Your task to perform on an android device: turn on bluetooth scan Image 0: 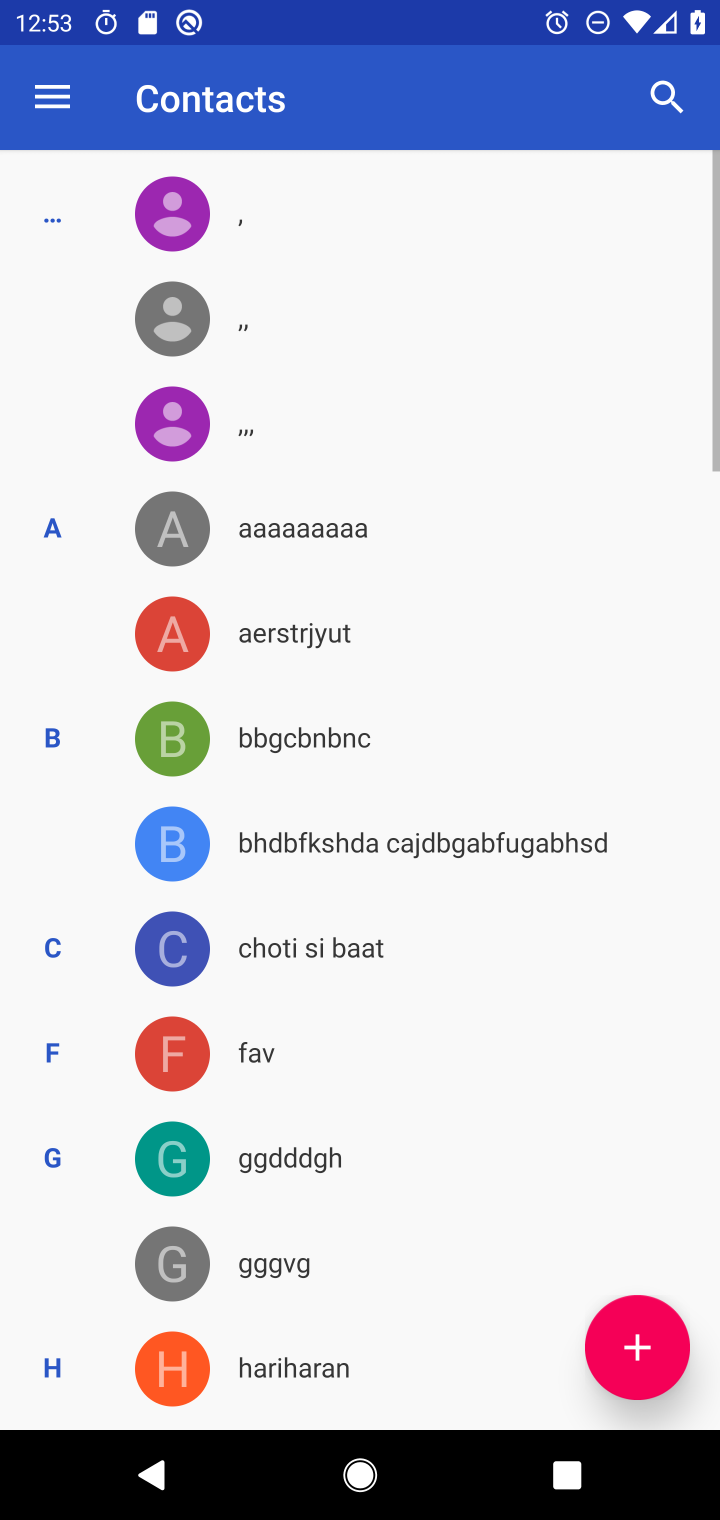
Step 0: press home button
Your task to perform on an android device: turn on bluetooth scan Image 1: 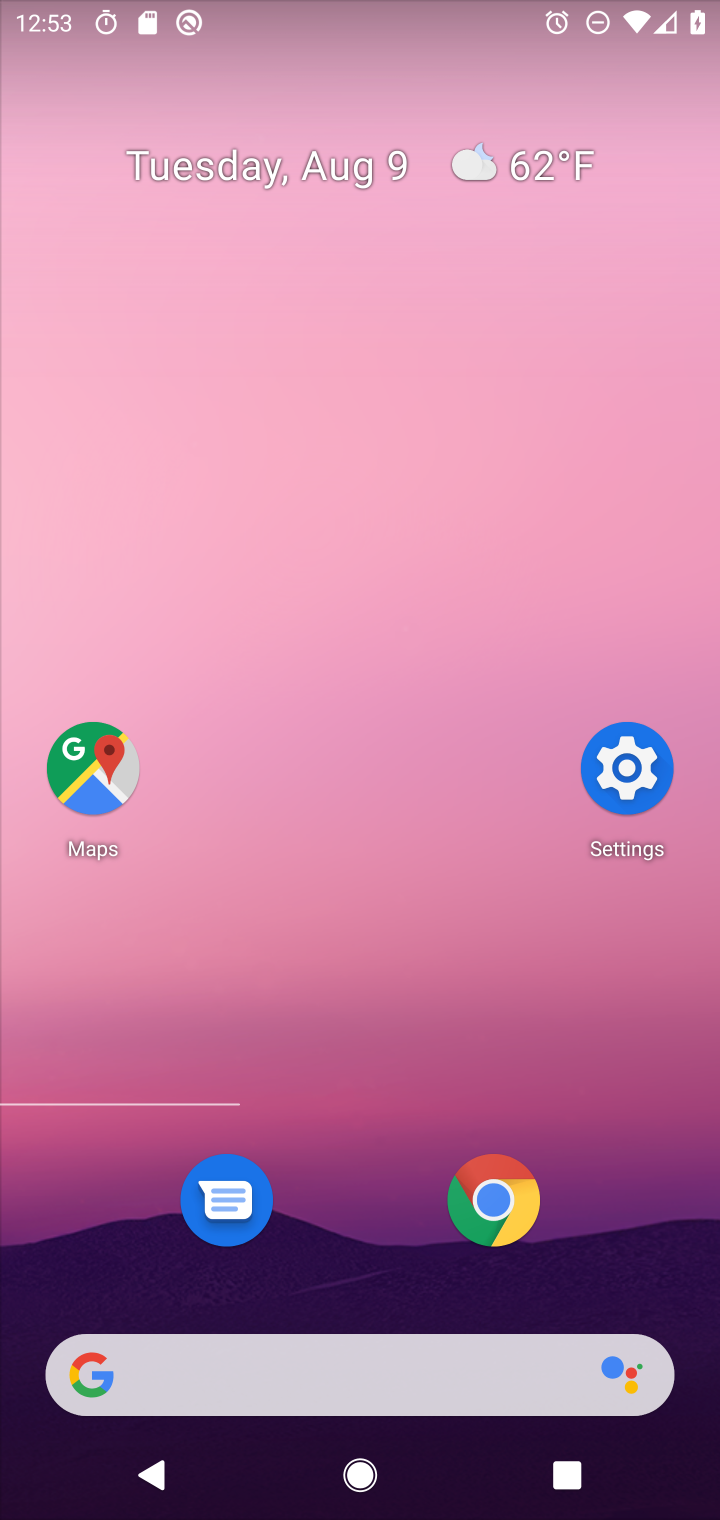
Step 1: click (610, 772)
Your task to perform on an android device: turn on bluetooth scan Image 2: 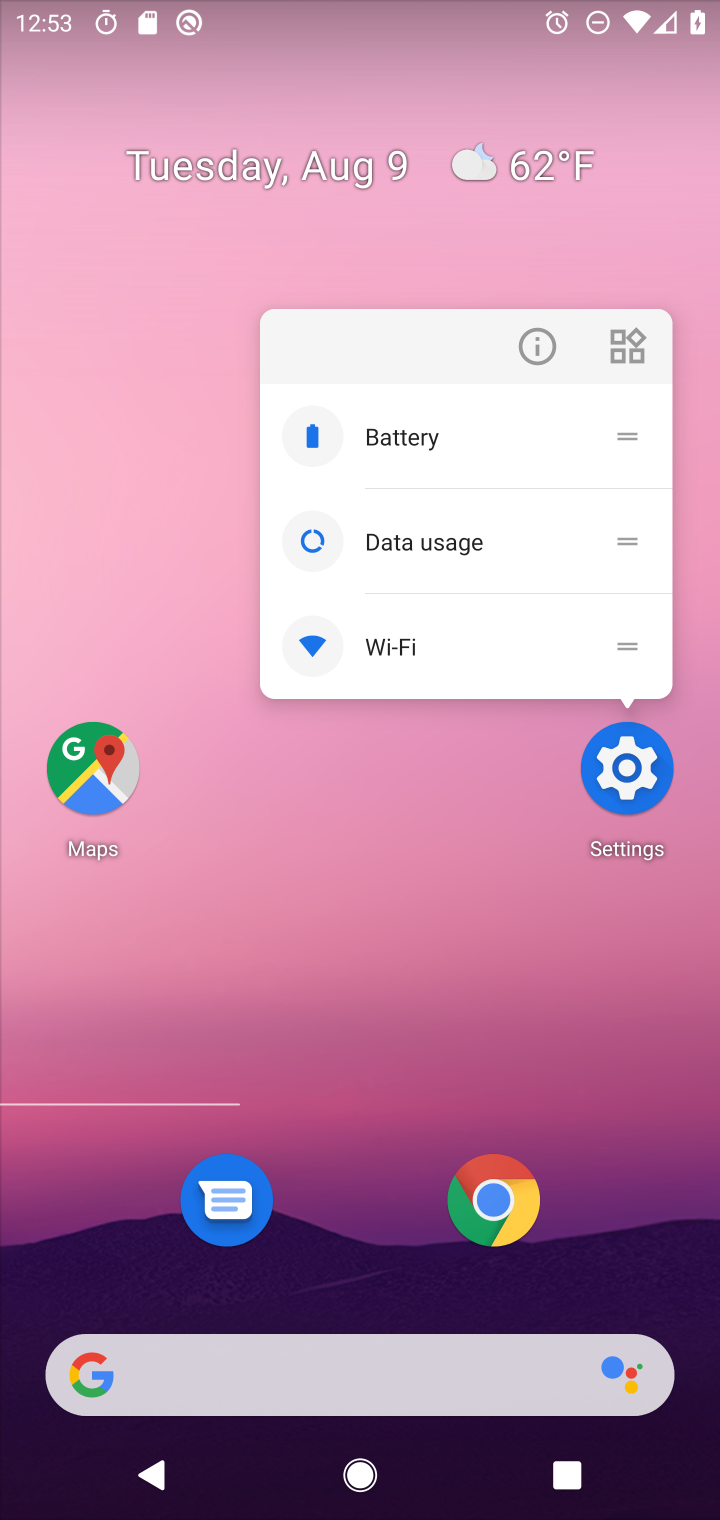
Step 2: click (610, 783)
Your task to perform on an android device: turn on bluetooth scan Image 3: 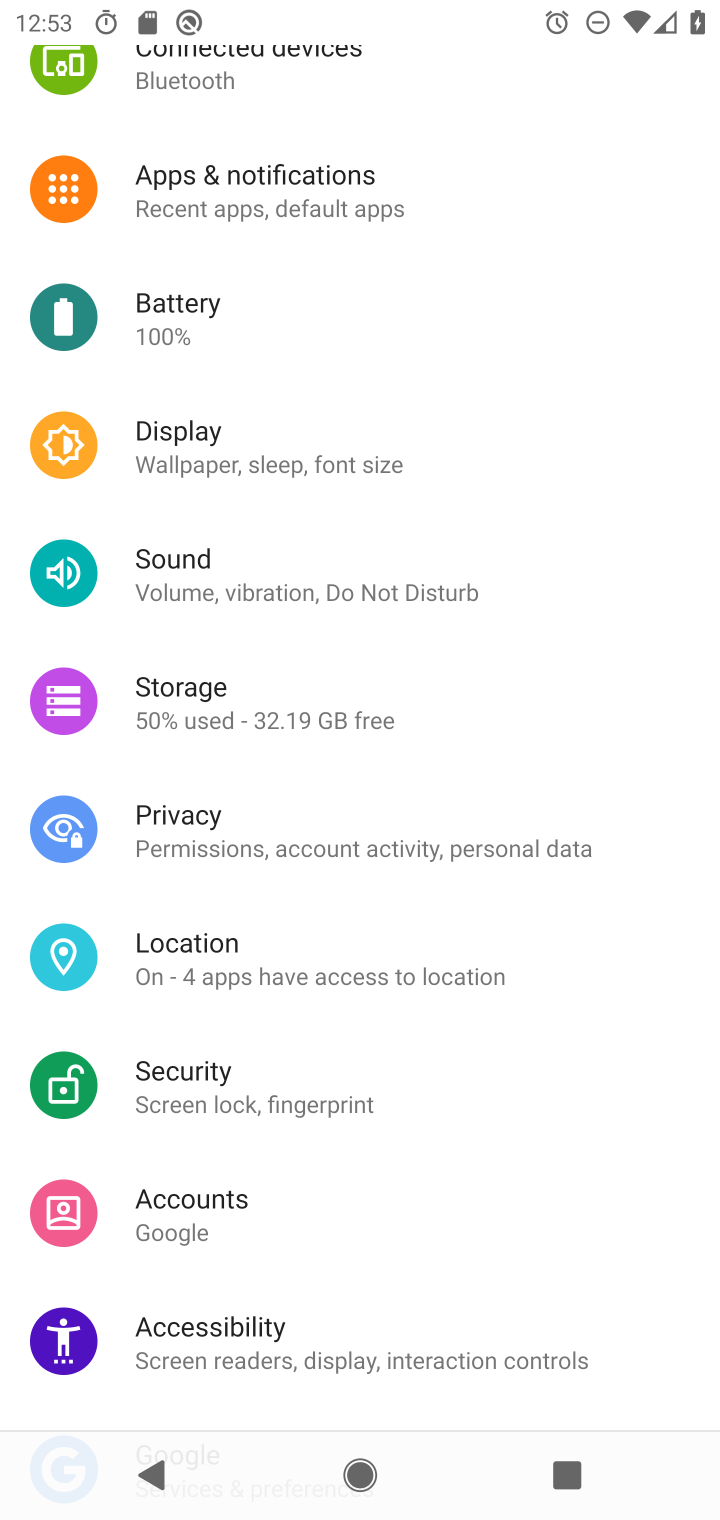
Step 3: click (224, 948)
Your task to perform on an android device: turn on bluetooth scan Image 4: 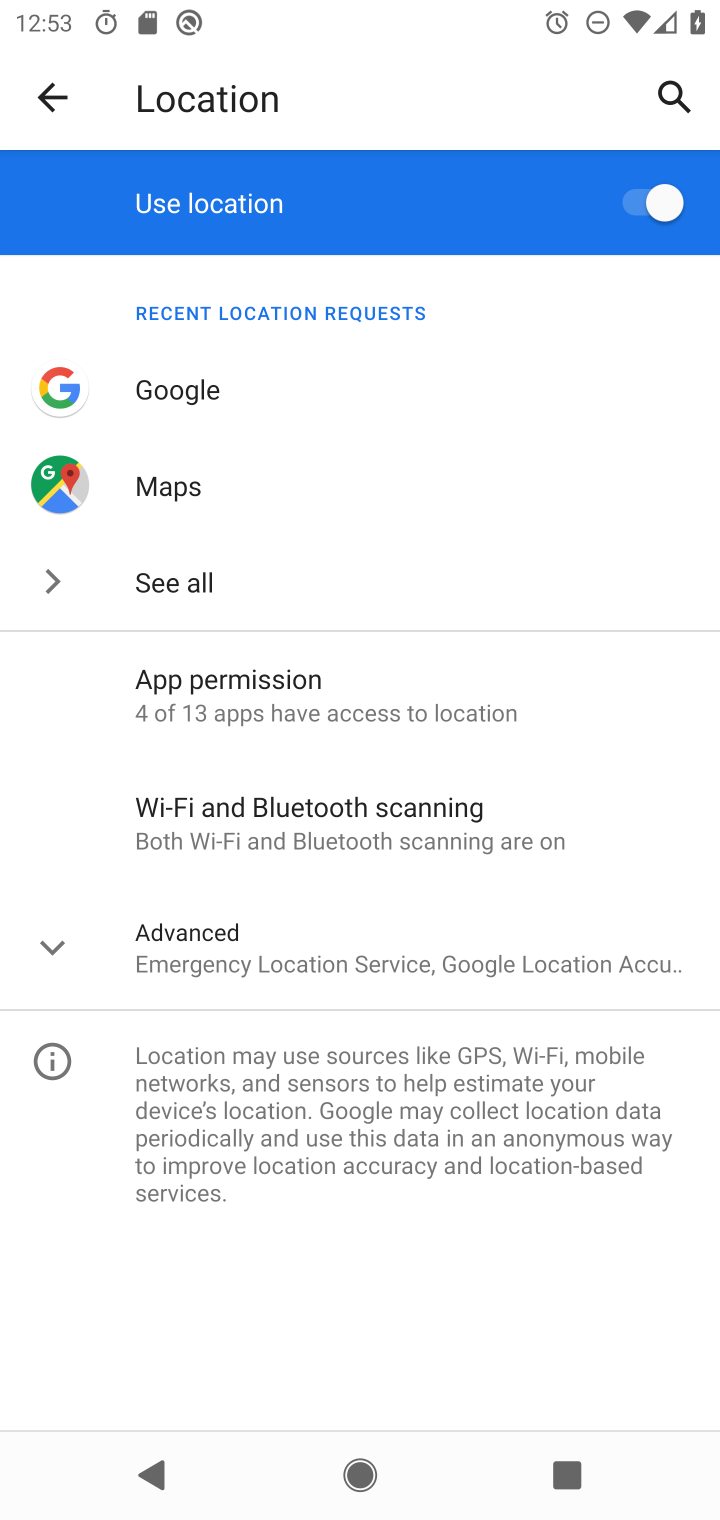
Step 4: click (318, 819)
Your task to perform on an android device: turn on bluetooth scan Image 5: 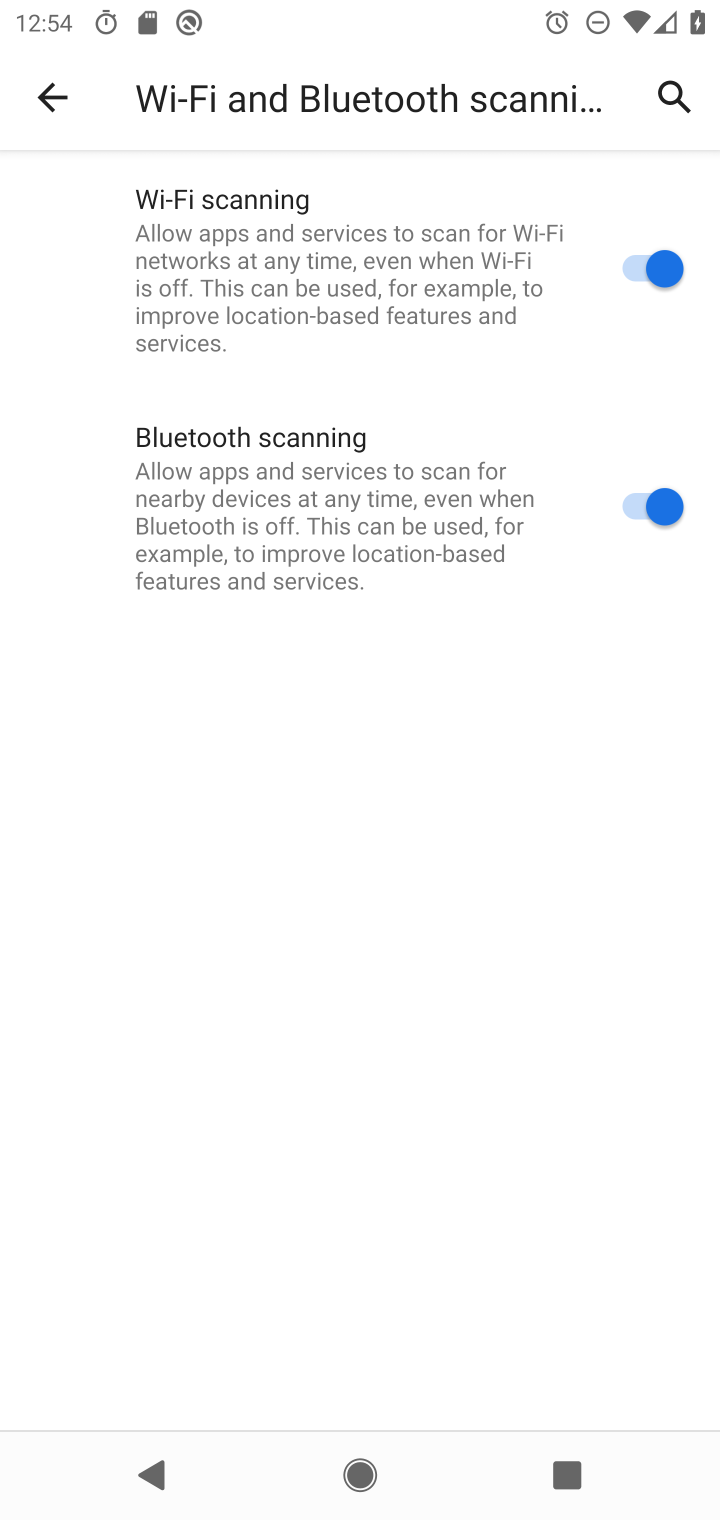
Step 5: task complete